Your task to perform on an android device: empty trash in google photos Image 0: 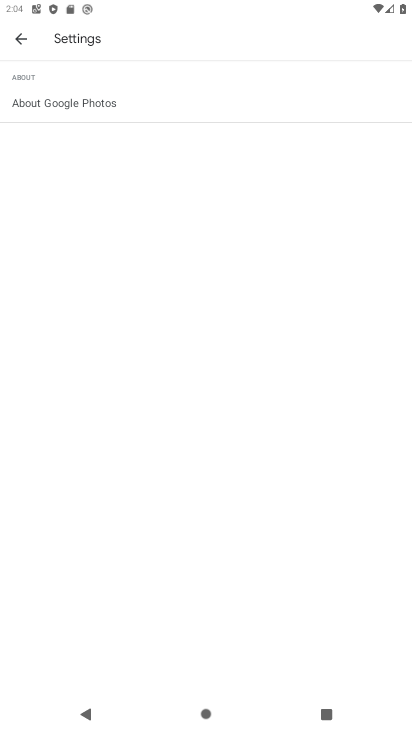
Step 0: press home button
Your task to perform on an android device: empty trash in google photos Image 1: 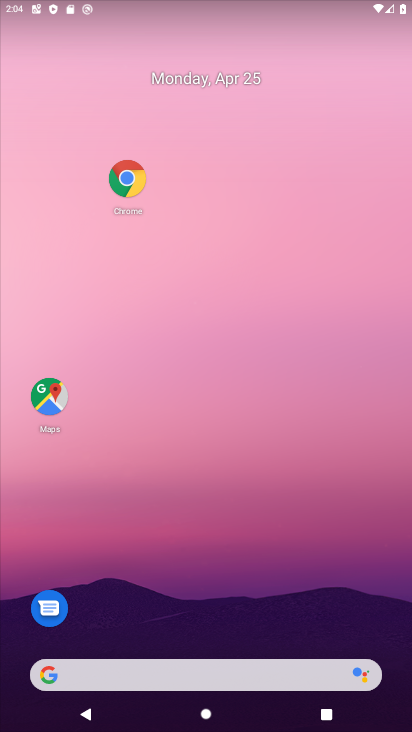
Step 1: drag from (137, 609) to (200, 202)
Your task to perform on an android device: empty trash in google photos Image 2: 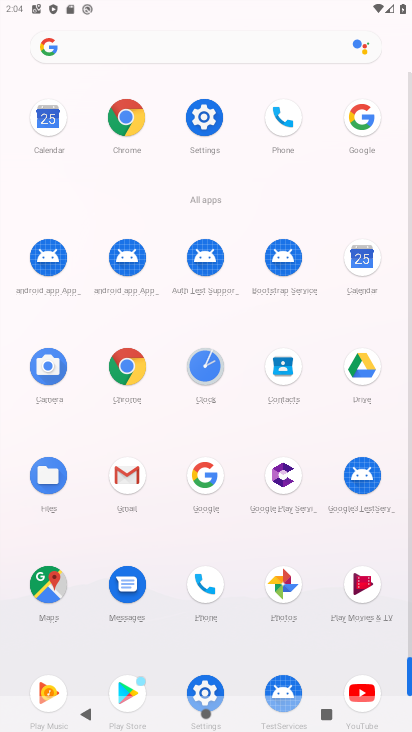
Step 2: click (287, 591)
Your task to perform on an android device: empty trash in google photos Image 3: 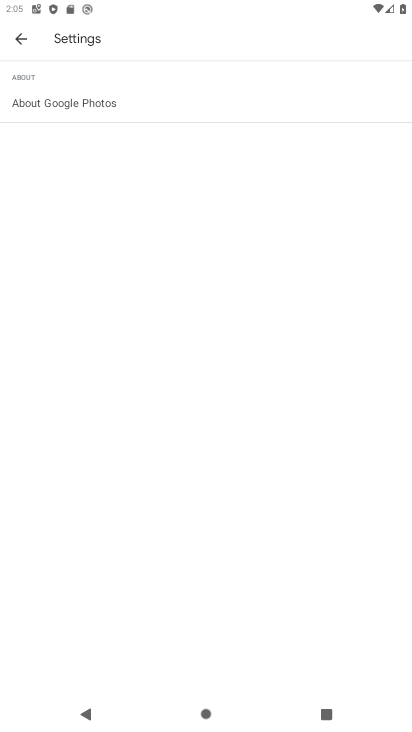
Step 3: click (17, 40)
Your task to perform on an android device: empty trash in google photos Image 4: 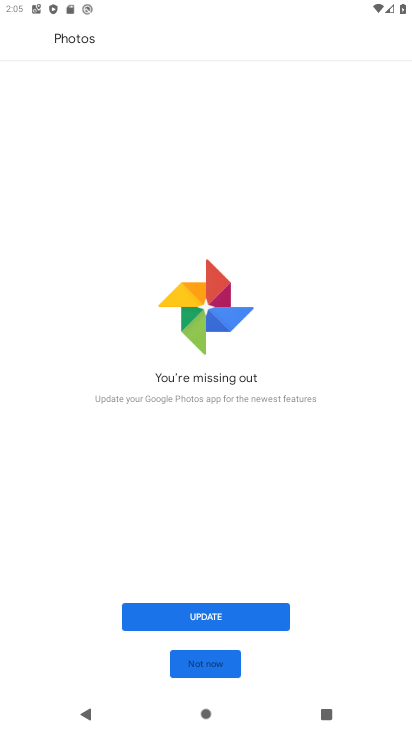
Step 4: click (266, 619)
Your task to perform on an android device: empty trash in google photos Image 5: 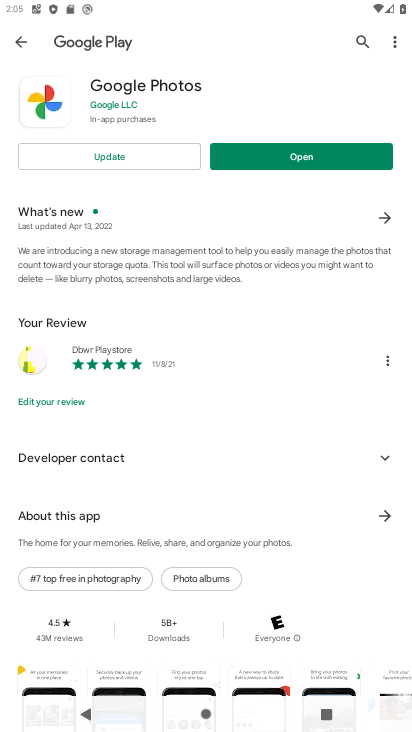
Step 5: click (111, 158)
Your task to perform on an android device: empty trash in google photos Image 6: 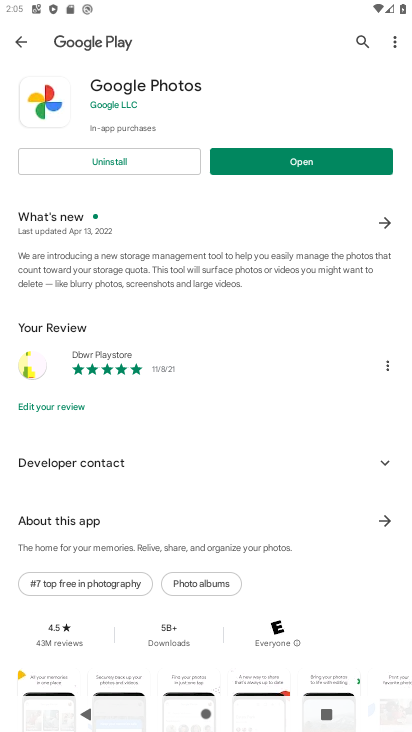
Step 6: click (288, 173)
Your task to perform on an android device: empty trash in google photos Image 7: 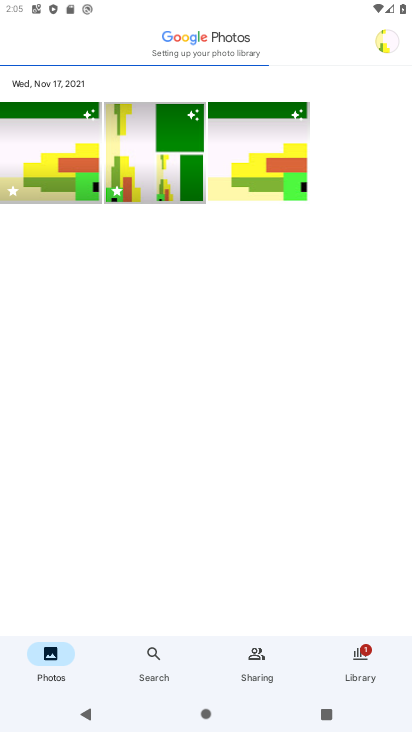
Step 7: click (364, 664)
Your task to perform on an android device: empty trash in google photos Image 8: 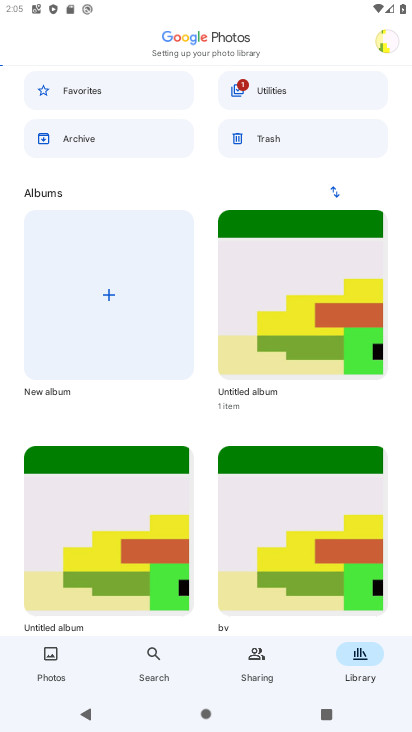
Step 8: click (290, 143)
Your task to perform on an android device: empty trash in google photos Image 9: 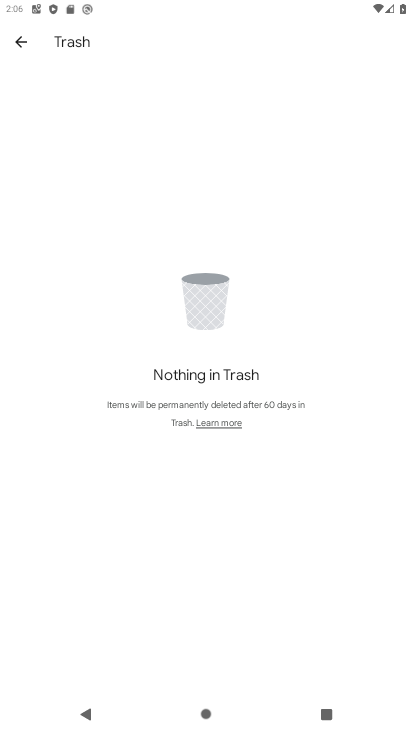
Step 9: task complete